Your task to perform on an android device: set default search engine in the chrome app Image 0: 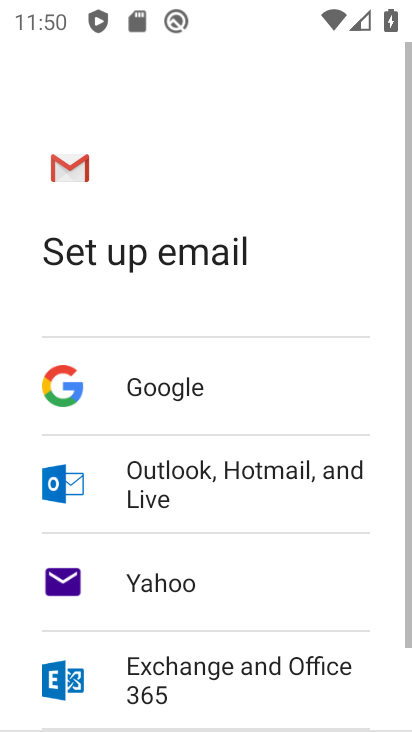
Step 0: press back button
Your task to perform on an android device: set default search engine in the chrome app Image 1: 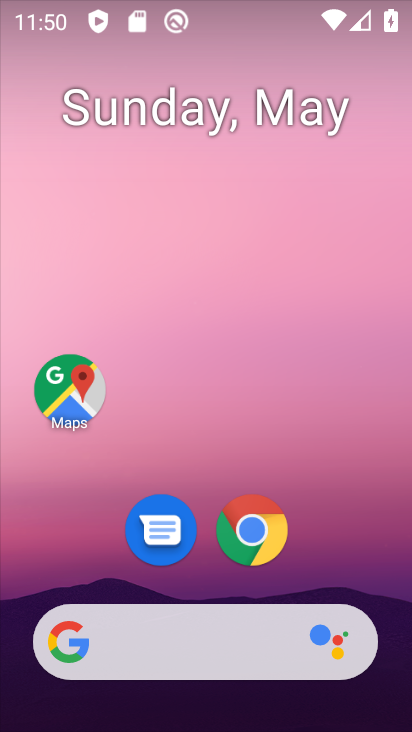
Step 1: click (255, 527)
Your task to perform on an android device: set default search engine in the chrome app Image 2: 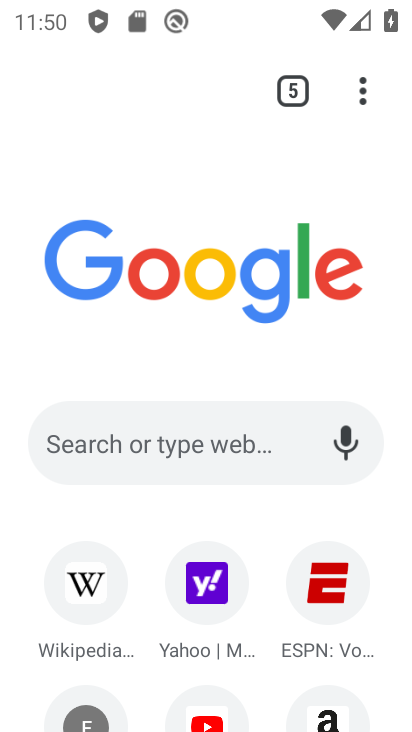
Step 2: drag from (364, 83) to (88, 560)
Your task to perform on an android device: set default search engine in the chrome app Image 3: 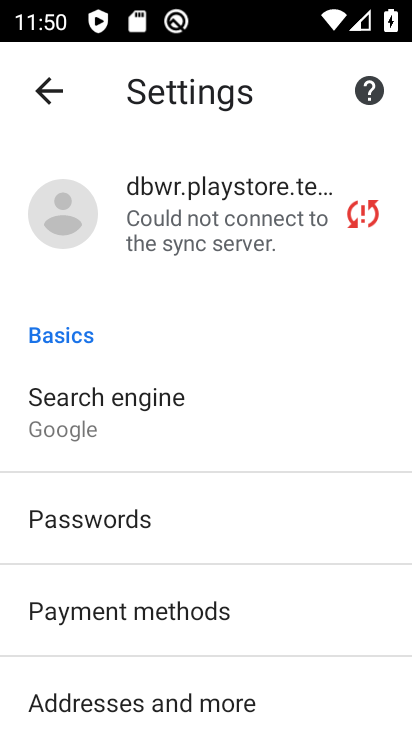
Step 3: click (149, 408)
Your task to perform on an android device: set default search engine in the chrome app Image 4: 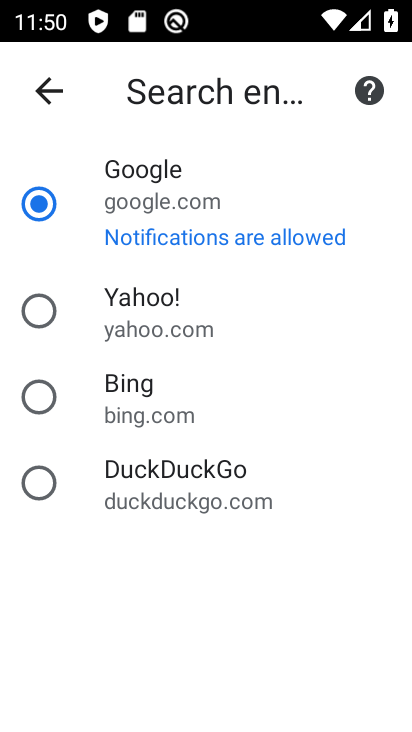
Step 4: click (33, 291)
Your task to perform on an android device: set default search engine in the chrome app Image 5: 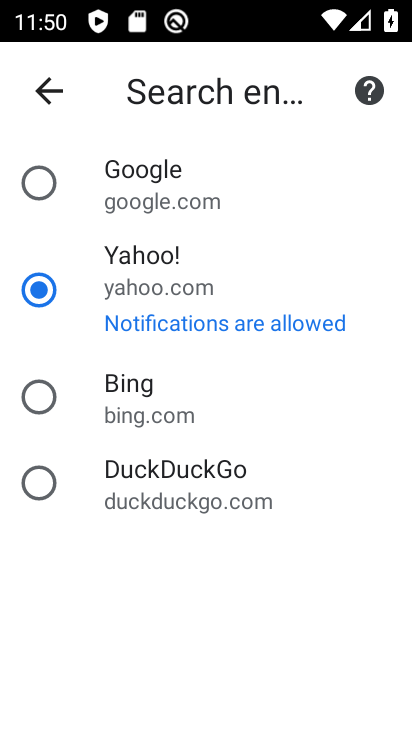
Step 5: task complete